Your task to perform on an android device: turn off notifications settings in the gmail app Image 0: 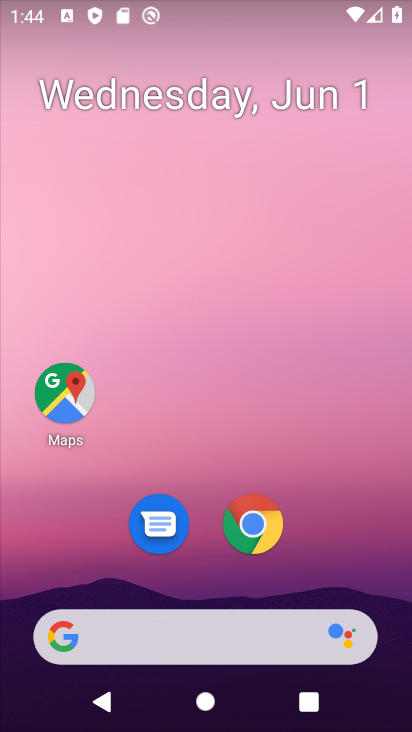
Step 0: drag from (306, 513) to (281, 16)
Your task to perform on an android device: turn off notifications settings in the gmail app Image 1: 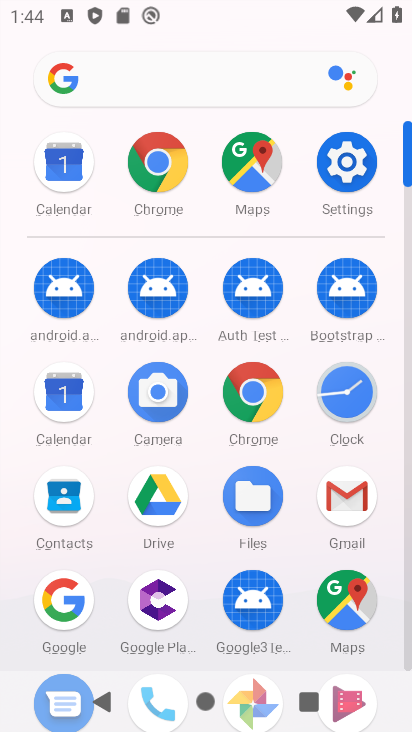
Step 1: click (345, 486)
Your task to perform on an android device: turn off notifications settings in the gmail app Image 2: 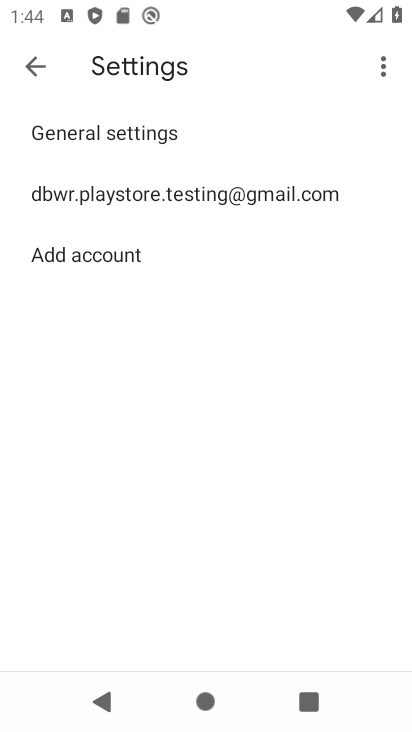
Step 2: click (231, 191)
Your task to perform on an android device: turn off notifications settings in the gmail app Image 3: 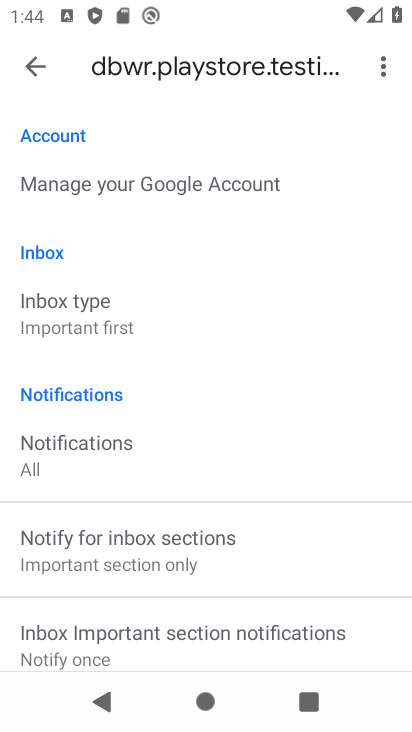
Step 3: drag from (255, 555) to (266, 166)
Your task to perform on an android device: turn off notifications settings in the gmail app Image 4: 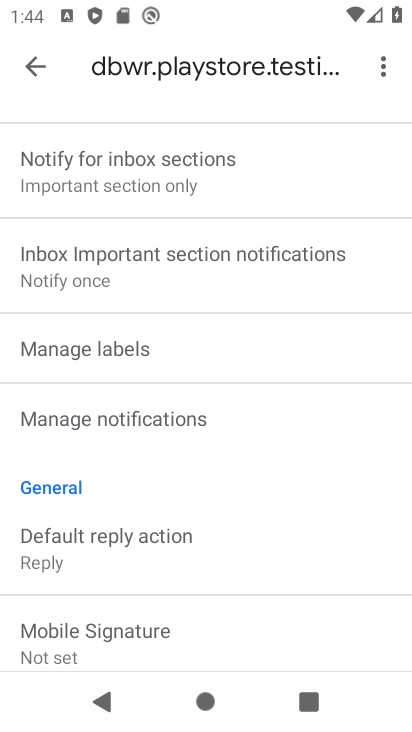
Step 4: click (276, 404)
Your task to perform on an android device: turn off notifications settings in the gmail app Image 5: 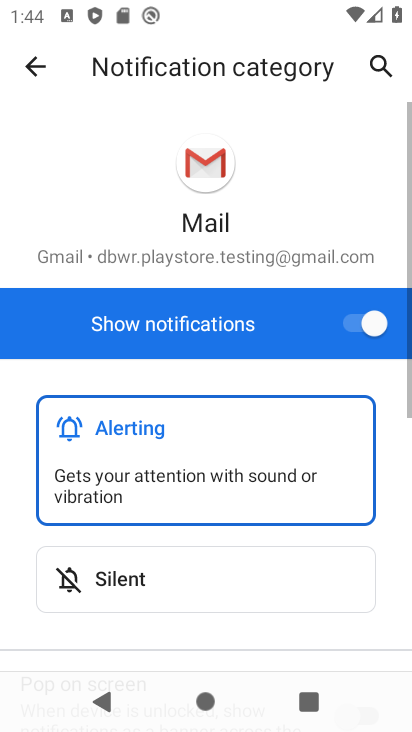
Step 5: click (353, 321)
Your task to perform on an android device: turn off notifications settings in the gmail app Image 6: 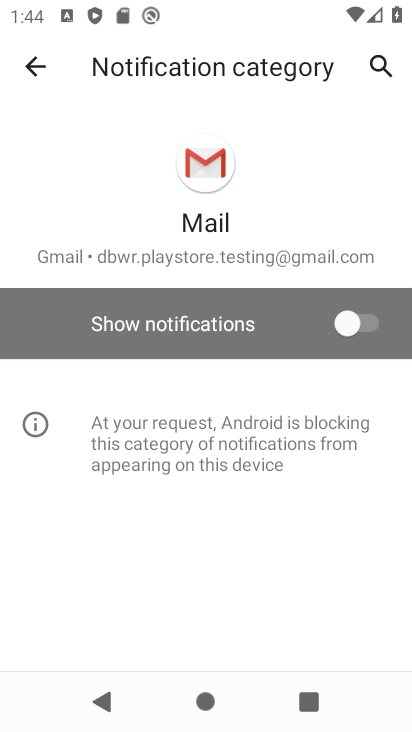
Step 6: task complete